Your task to perform on an android device: Show me recent news Image 0: 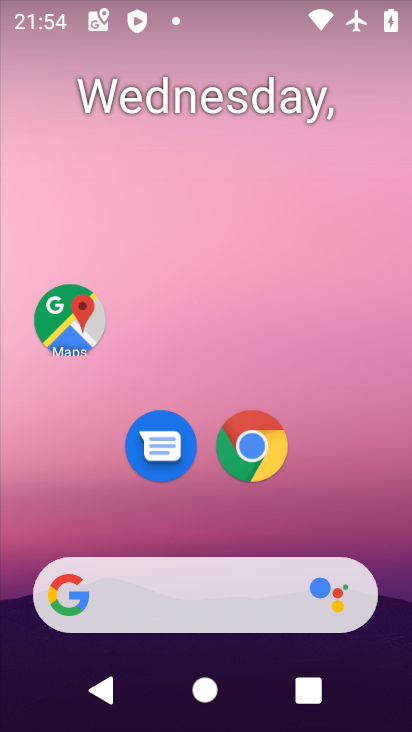
Step 0: press home button
Your task to perform on an android device: Show me recent news Image 1: 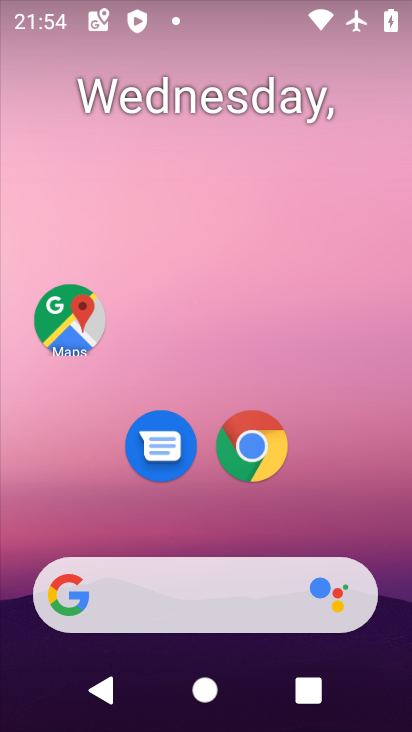
Step 1: click (81, 597)
Your task to perform on an android device: Show me recent news Image 2: 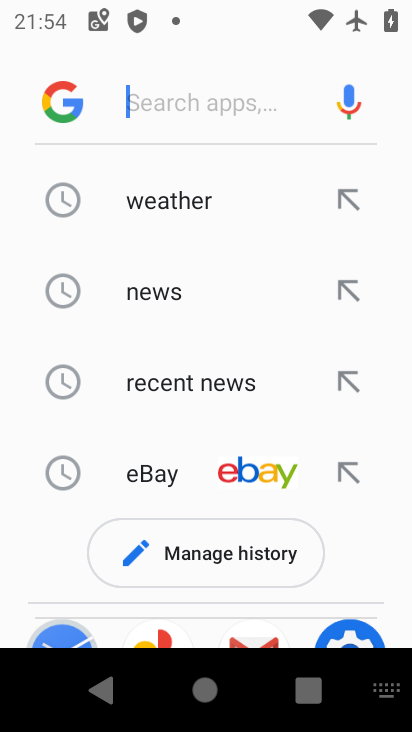
Step 2: click (183, 383)
Your task to perform on an android device: Show me recent news Image 3: 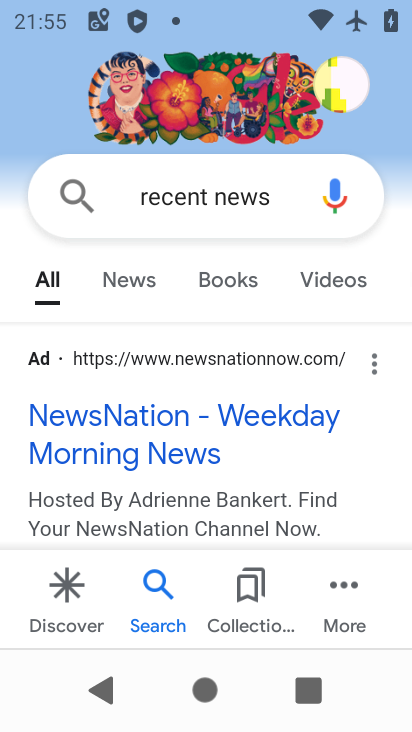
Step 3: click (138, 284)
Your task to perform on an android device: Show me recent news Image 4: 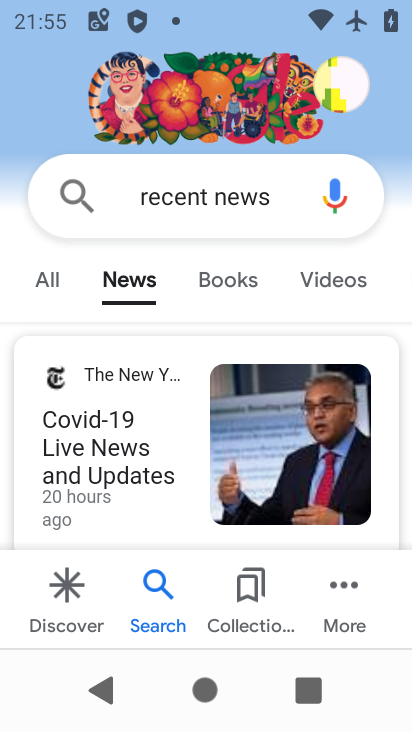
Step 4: task complete